Your task to perform on an android device: check android version Image 0: 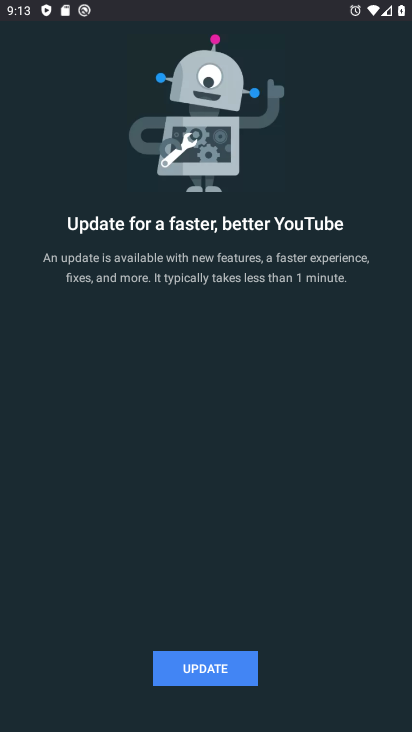
Step 0: press home button
Your task to perform on an android device: check android version Image 1: 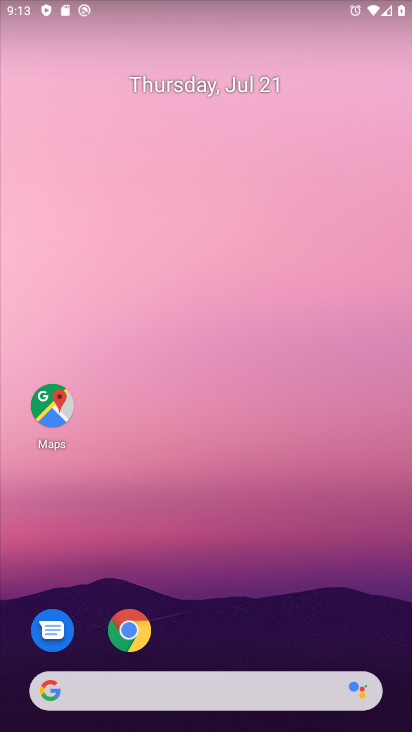
Step 1: drag from (223, 677) to (223, 268)
Your task to perform on an android device: check android version Image 2: 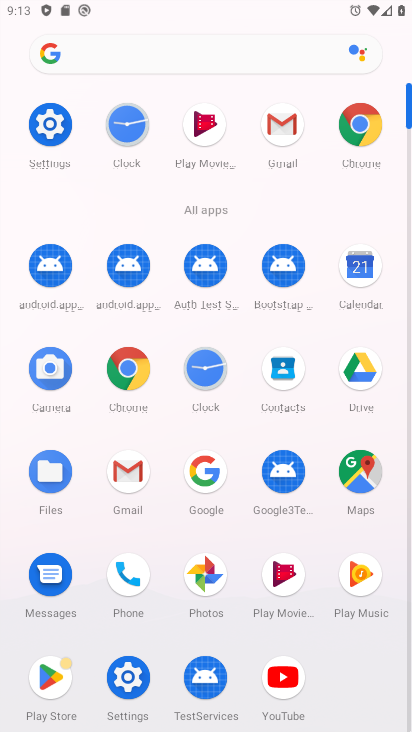
Step 2: click (59, 124)
Your task to perform on an android device: check android version Image 3: 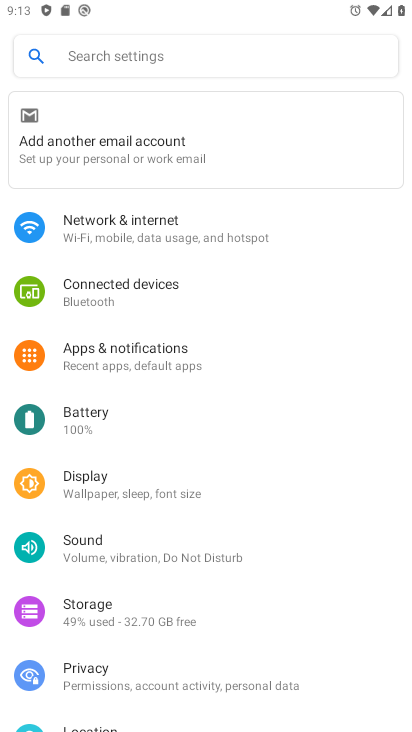
Step 3: drag from (99, 704) to (103, 370)
Your task to perform on an android device: check android version Image 4: 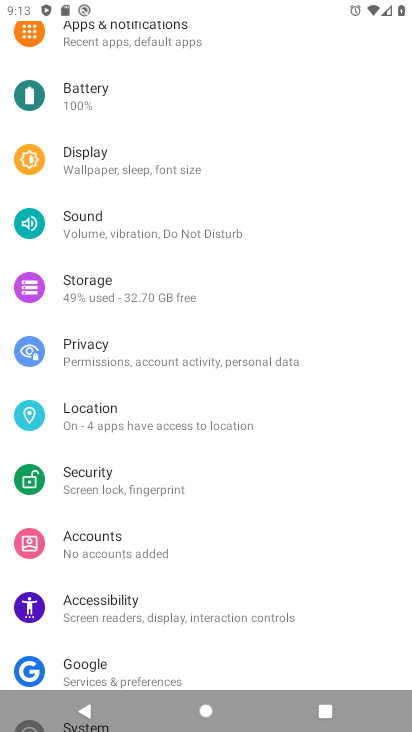
Step 4: drag from (130, 670) to (108, 360)
Your task to perform on an android device: check android version Image 5: 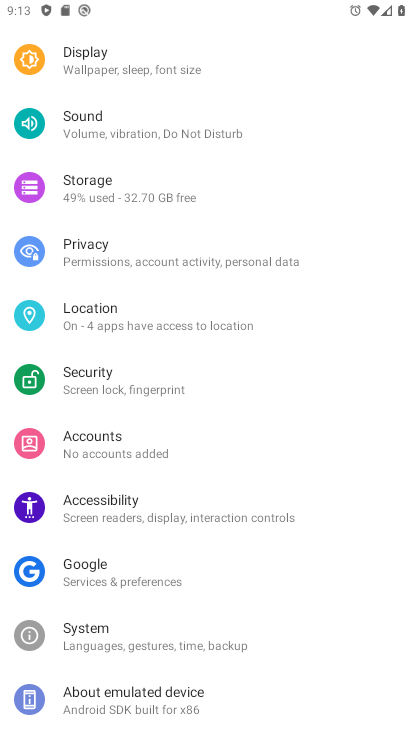
Step 5: click (113, 690)
Your task to perform on an android device: check android version Image 6: 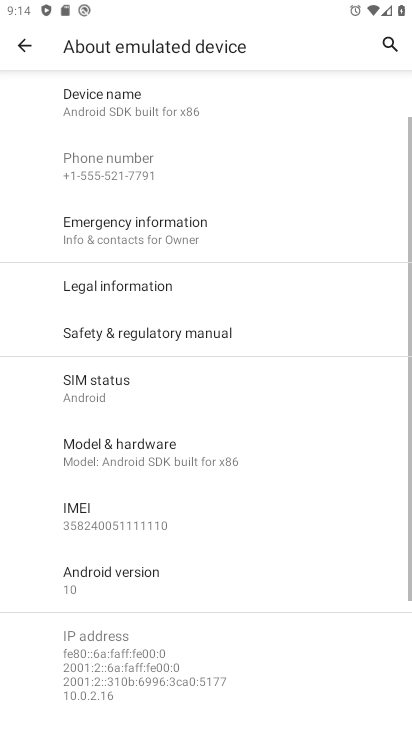
Step 6: click (117, 568)
Your task to perform on an android device: check android version Image 7: 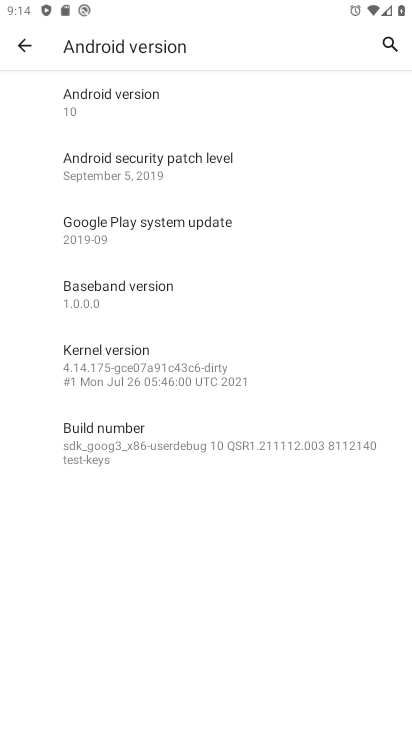
Step 7: task complete